Your task to perform on an android device: set the stopwatch Image 0: 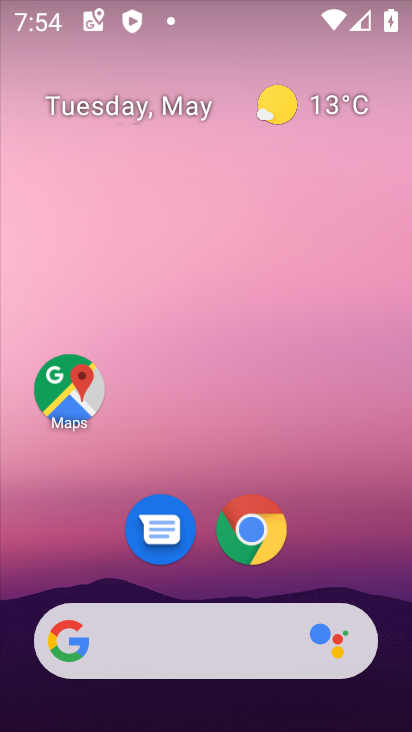
Step 0: drag from (365, 551) to (68, 5)
Your task to perform on an android device: set the stopwatch Image 1: 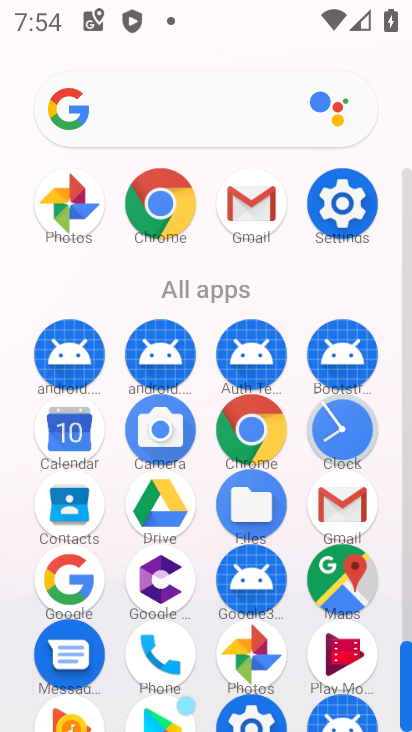
Step 1: click (351, 455)
Your task to perform on an android device: set the stopwatch Image 2: 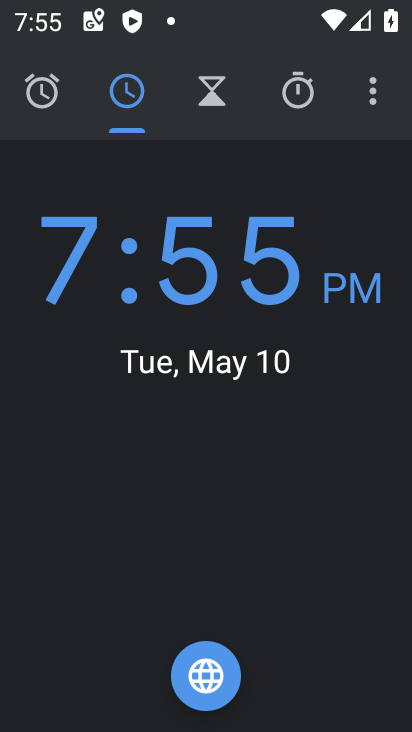
Step 2: click (286, 110)
Your task to perform on an android device: set the stopwatch Image 3: 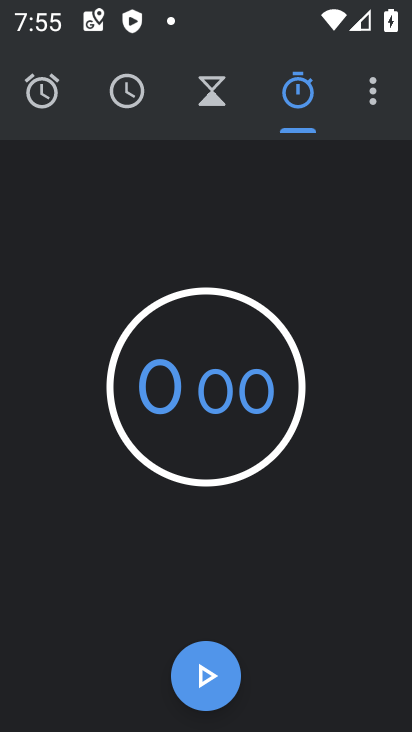
Step 3: task complete